Your task to perform on an android device: Turn on the flashlight Image 0: 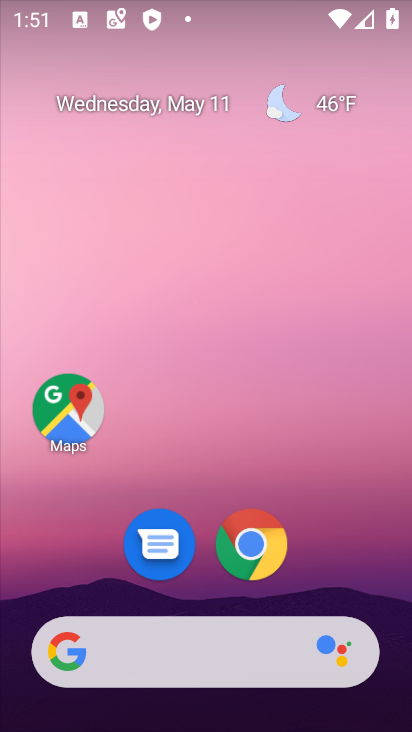
Step 0: drag from (221, 10) to (234, 650)
Your task to perform on an android device: Turn on the flashlight Image 1: 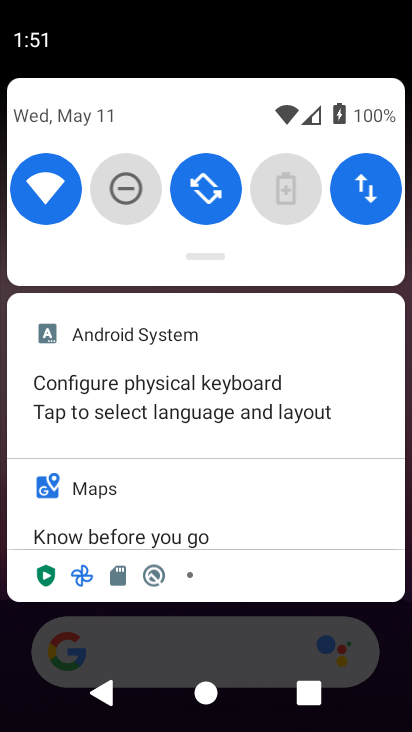
Step 1: drag from (213, 259) to (198, 512)
Your task to perform on an android device: Turn on the flashlight Image 2: 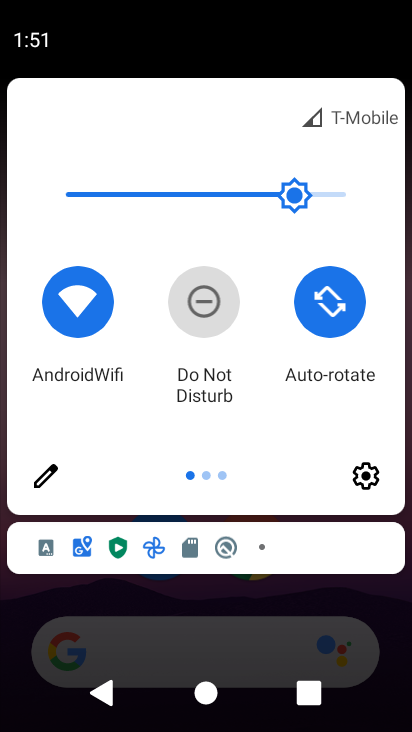
Step 2: click (39, 475)
Your task to perform on an android device: Turn on the flashlight Image 3: 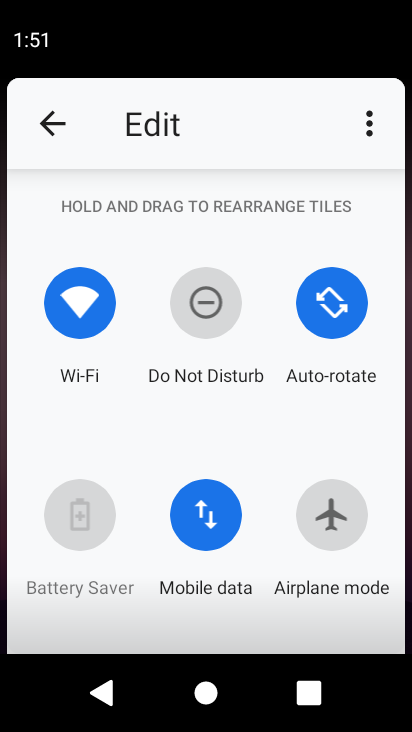
Step 3: task complete